Your task to perform on an android device: open app "Yahoo Mail" (install if not already installed) Image 0: 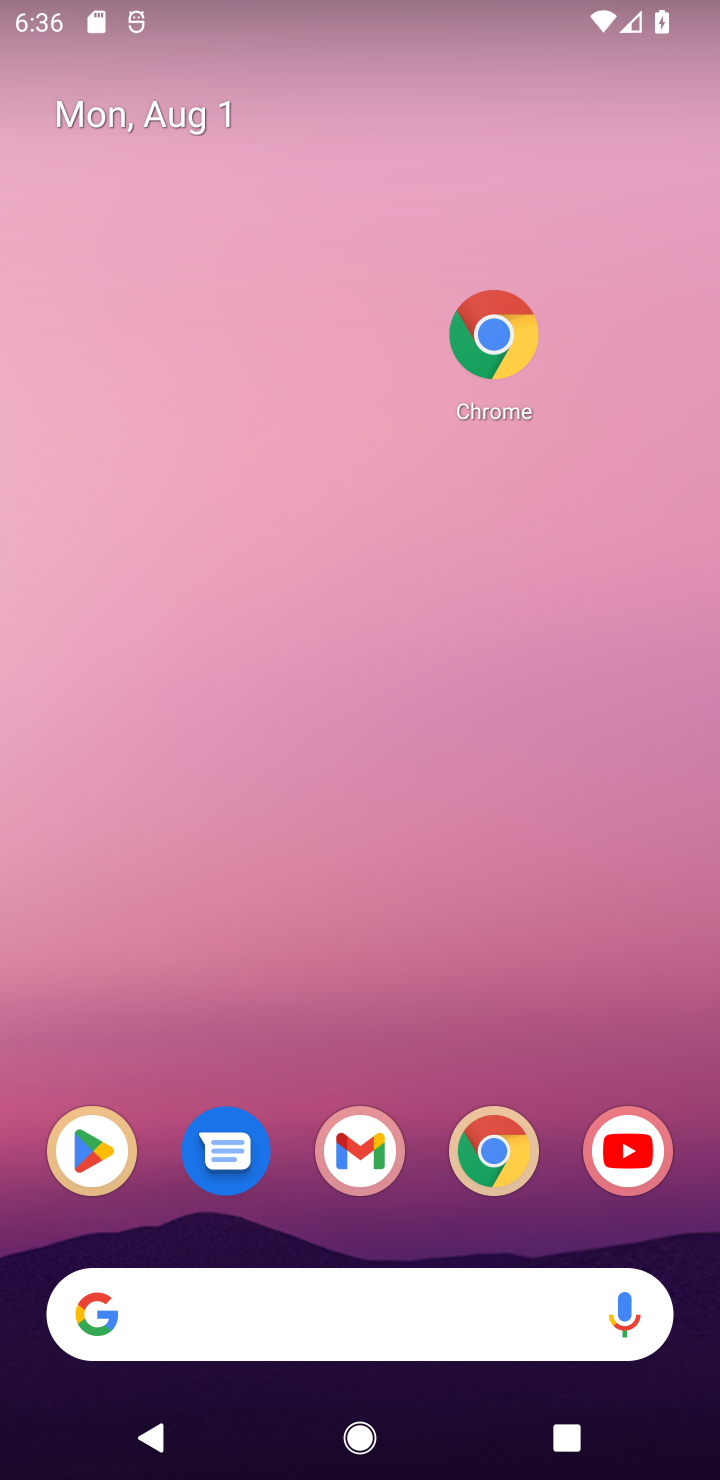
Step 0: click (84, 1156)
Your task to perform on an android device: open app "Yahoo Mail" (install if not already installed) Image 1: 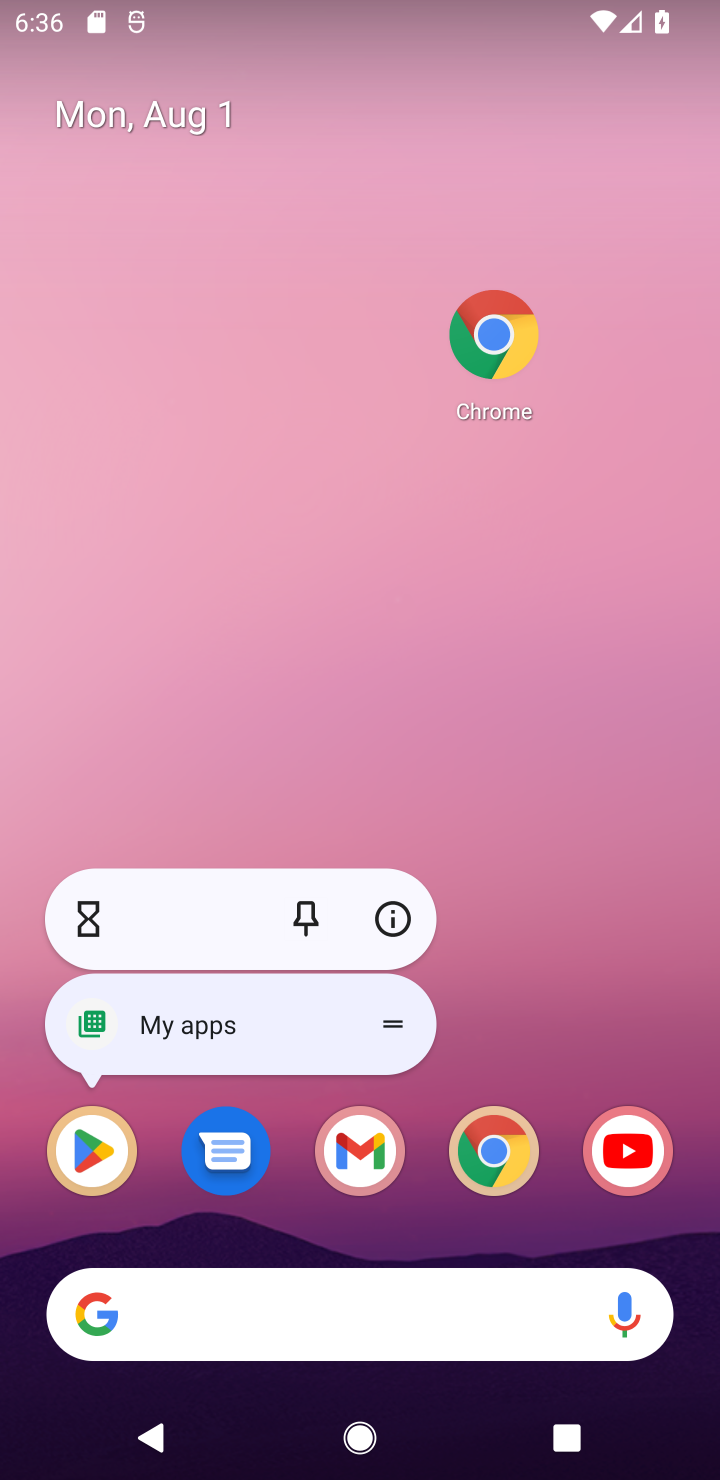
Step 1: click (84, 1156)
Your task to perform on an android device: open app "Yahoo Mail" (install if not already installed) Image 2: 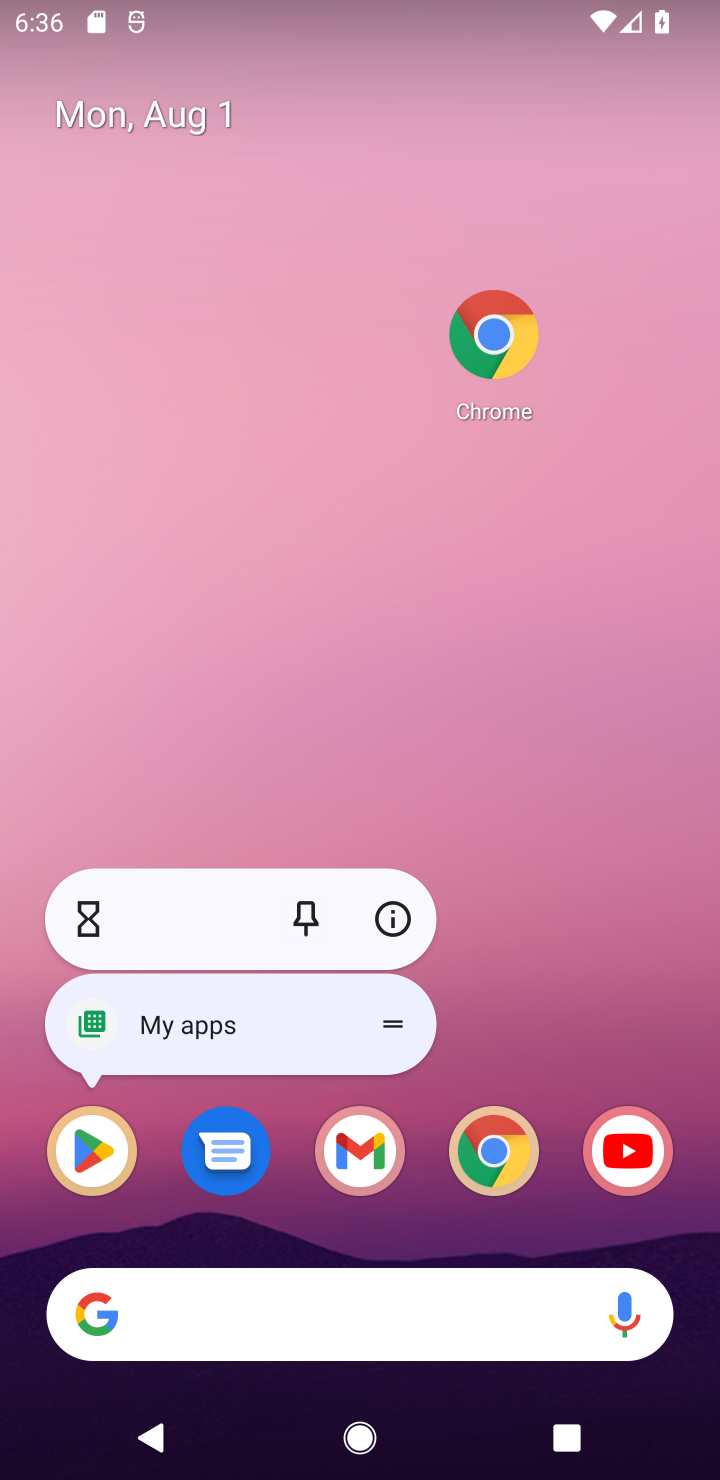
Step 2: click (84, 1156)
Your task to perform on an android device: open app "Yahoo Mail" (install if not already installed) Image 3: 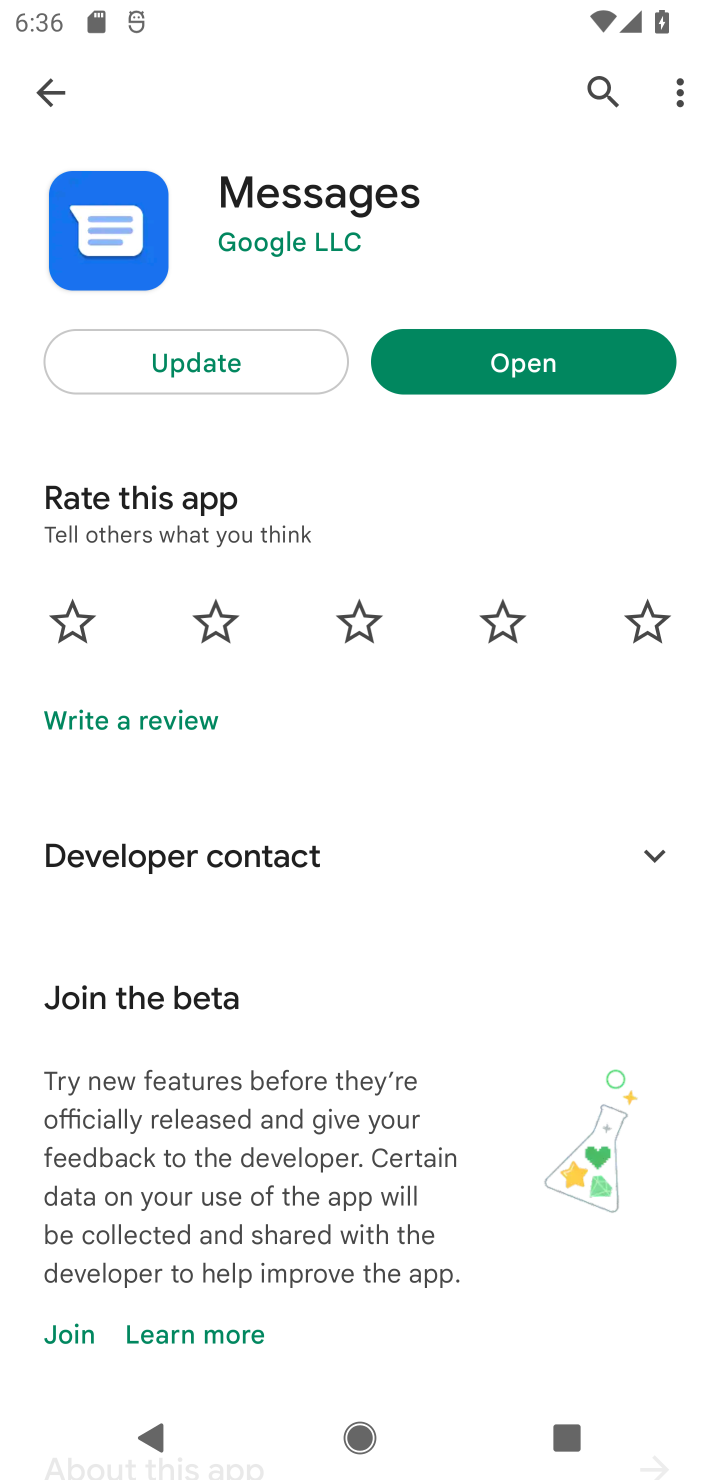
Step 3: click (602, 82)
Your task to perform on an android device: open app "Yahoo Mail" (install if not already installed) Image 4: 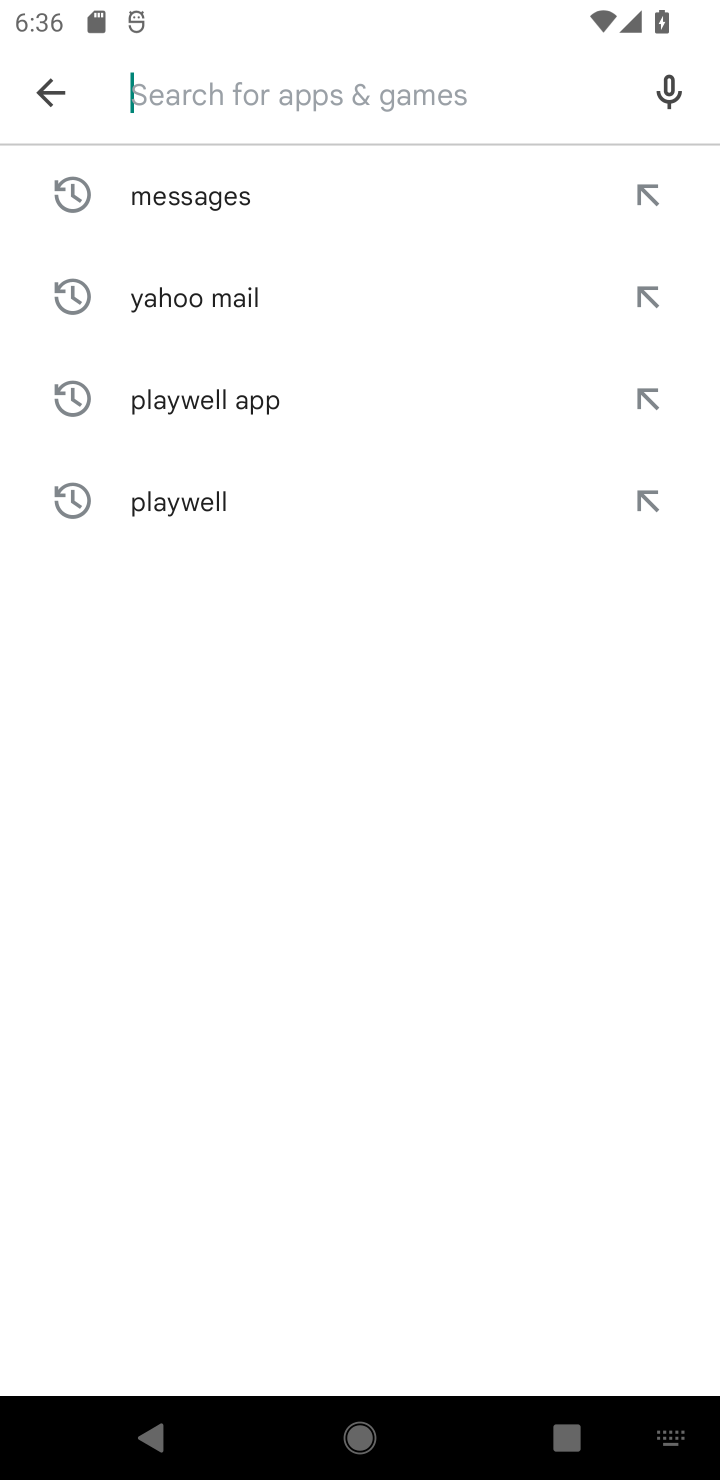
Step 4: type "Yahoo Mail"
Your task to perform on an android device: open app "Yahoo Mail" (install if not already installed) Image 5: 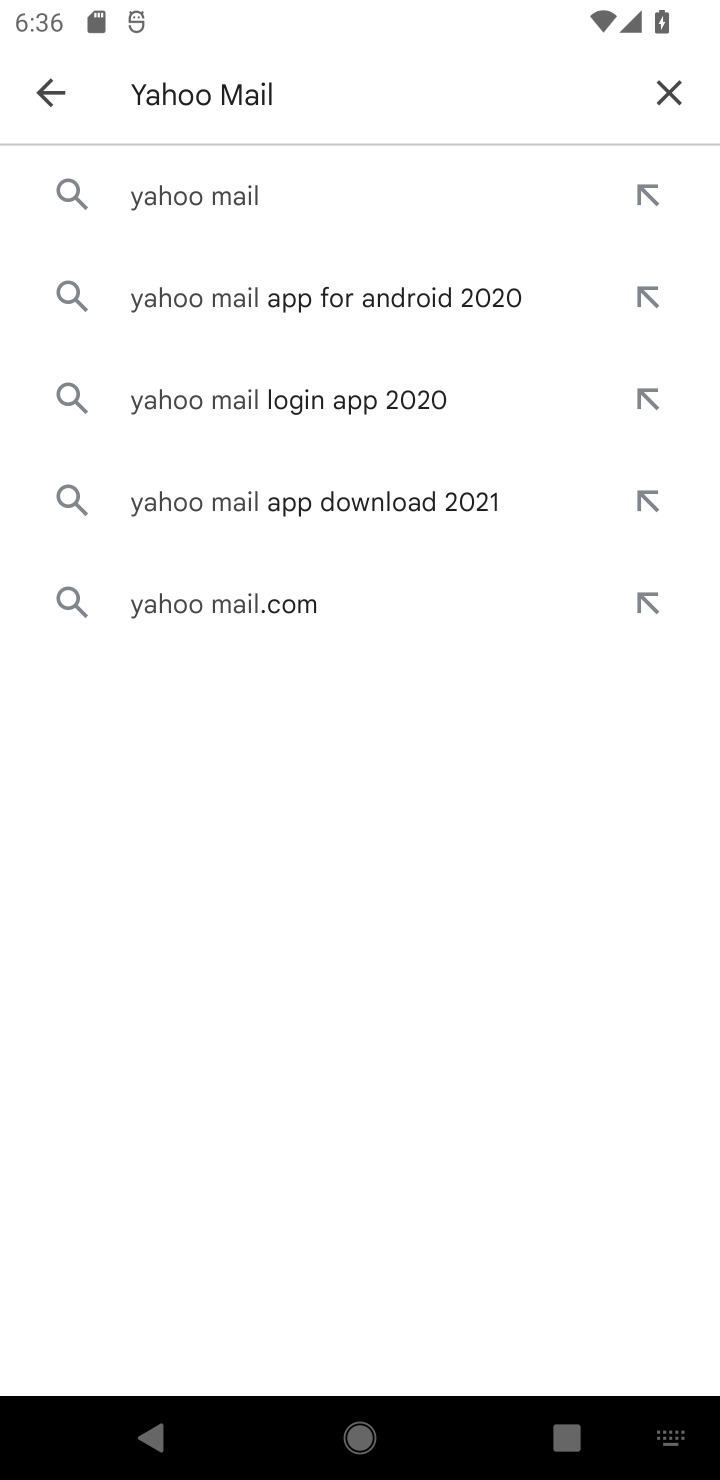
Step 5: click (205, 191)
Your task to perform on an android device: open app "Yahoo Mail" (install if not already installed) Image 6: 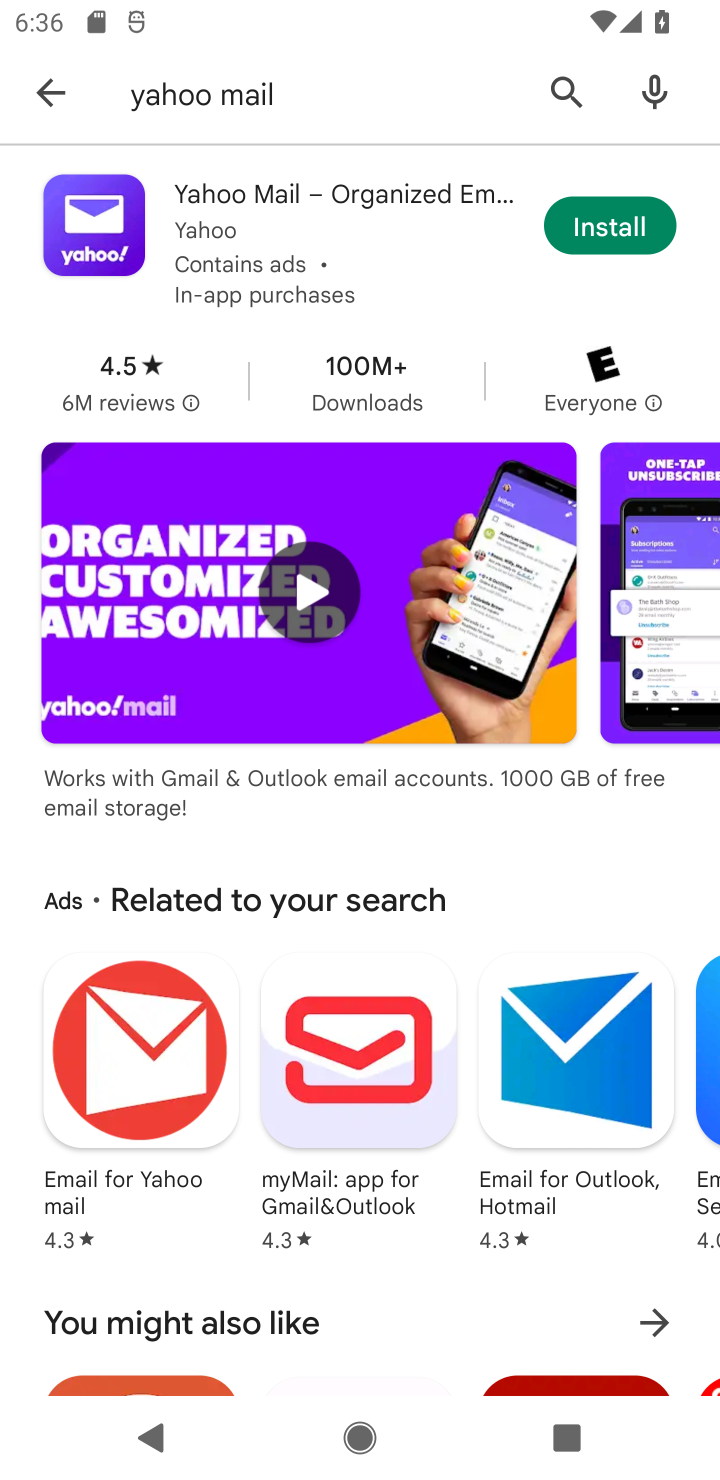
Step 6: click (594, 230)
Your task to perform on an android device: open app "Yahoo Mail" (install if not already installed) Image 7: 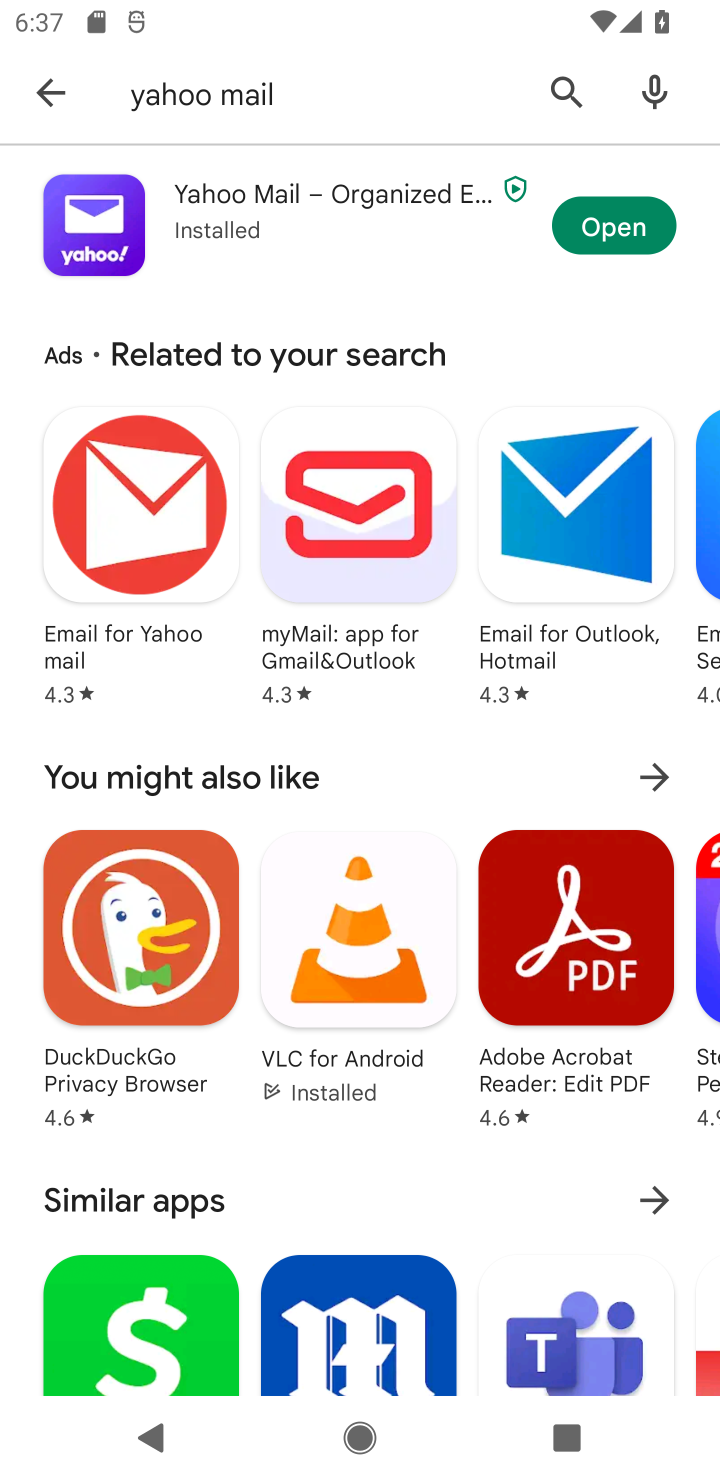
Step 7: click (594, 230)
Your task to perform on an android device: open app "Yahoo Mail" (install if not already installed) Image 8: 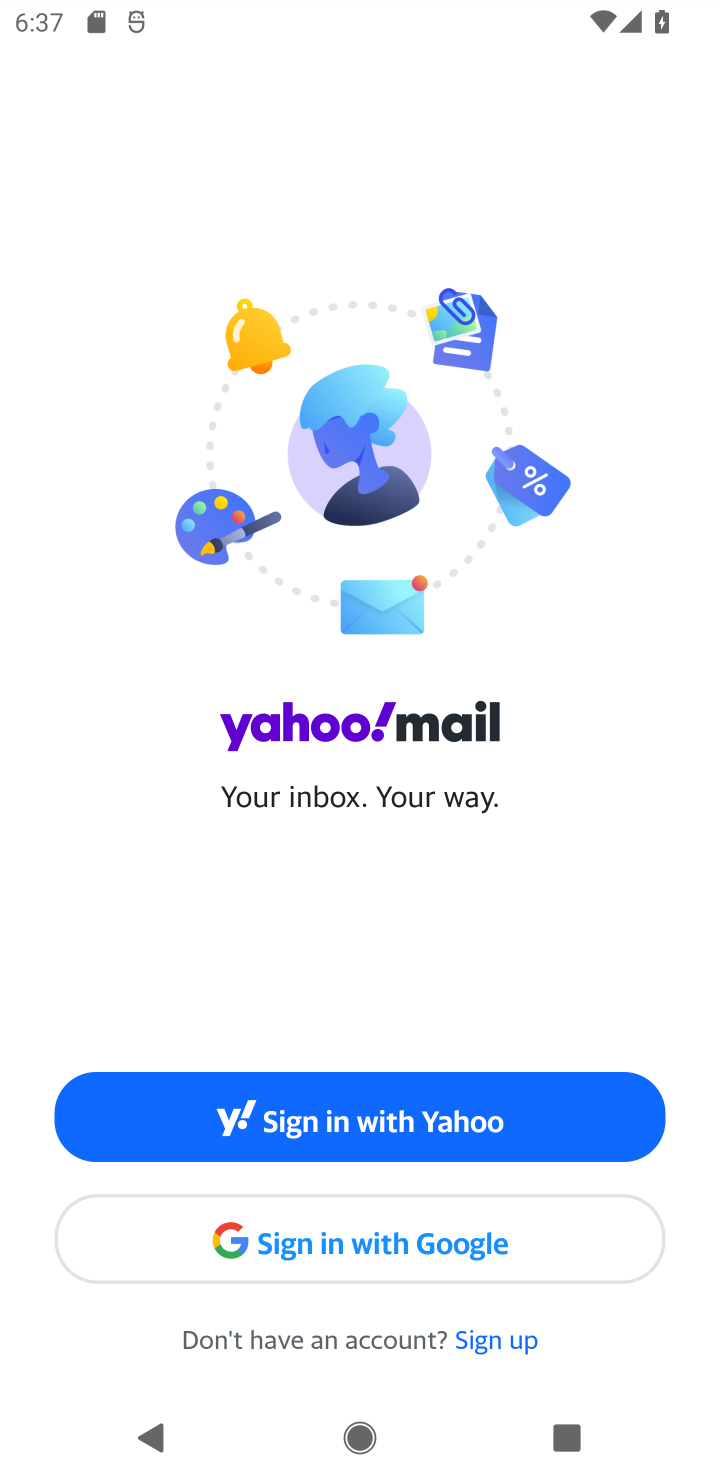
Step 8: task complete